Your task to perform on an android device: Open Yahoo.com Image 0: 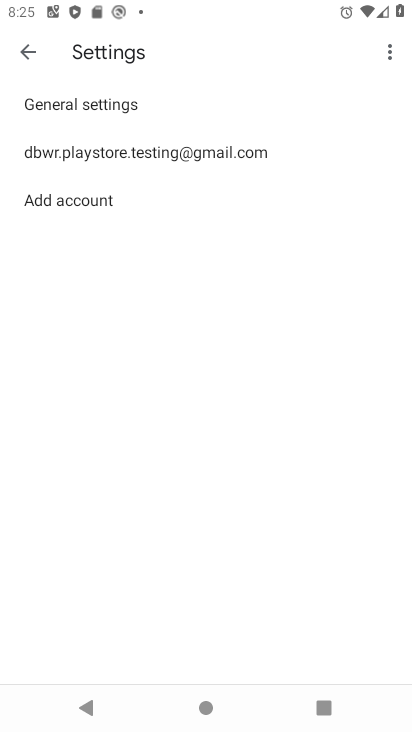
Step 0: press home button
Your task to perform on an android device: Open Yahoo.com Image 1: 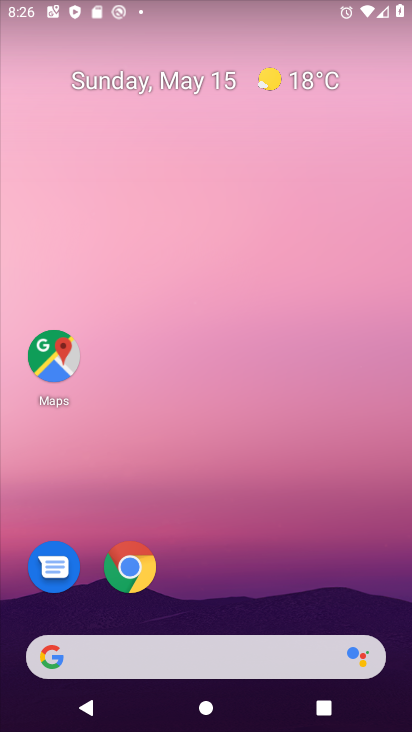
Step 1: click (159, 656)
Your task to perform on an android device: Open Yahoo.com Image 2: 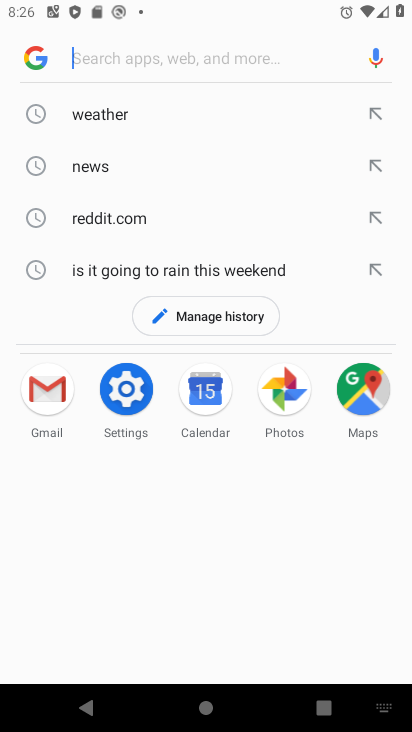
Step 2: type "yahoo.com"
Your task to perform on an android device: Open Yahoo.com Image 3: 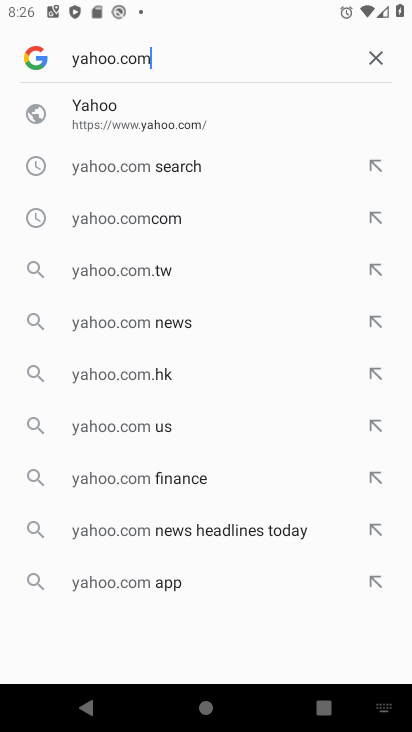
Step 3: click (166, 122)
Your task to perform on an android device: Open Yahoo.com Image 4: 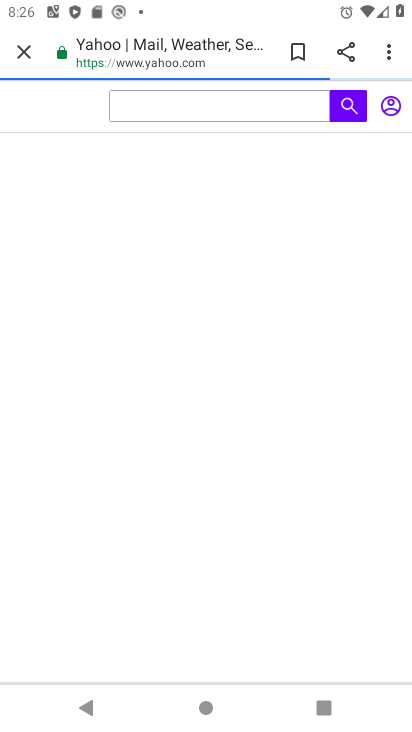
Step 4: task complete